Your task to perform on an android device: turn vacation reply on in the gmail app Image 0: 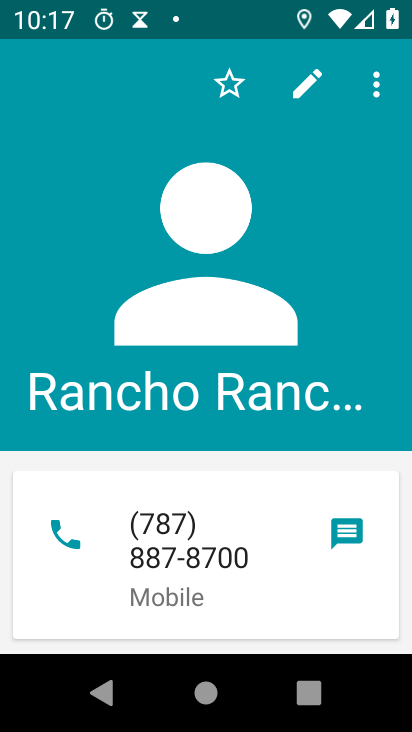
Step 0: press home button
Your task to perform on an android device: turn vacation reply on in the gmail app Image 1: 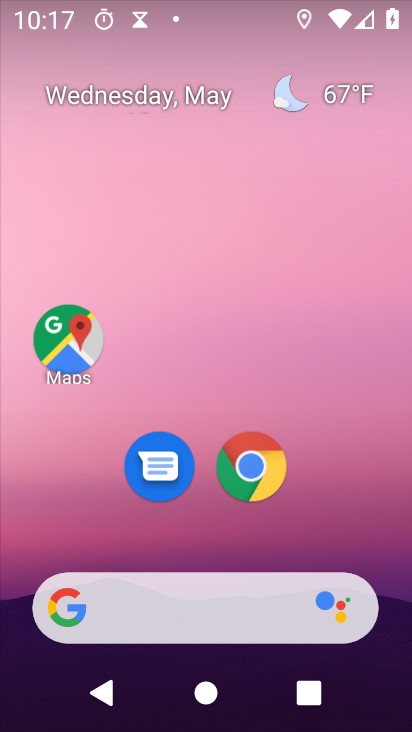
Step 1: drag from (248, 552) to (191, 296)
Your task to perform on an android device: turn vacation reply on in the gmail app Image 2: 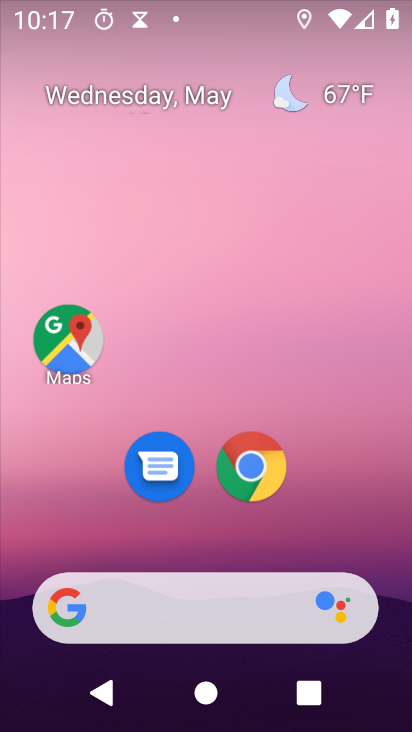
Step 2: drag from (177, 507) to (135, 180)
Your task to perform on an android device: turn vacation reply on in the gmail app Image 3: 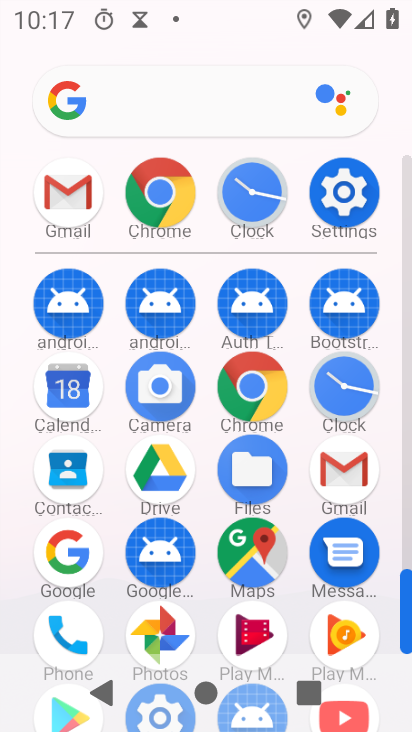
Step 3: click (76, 222)
Your task to perform on an android device: turn vacation reply on in the gmail app Image 4: 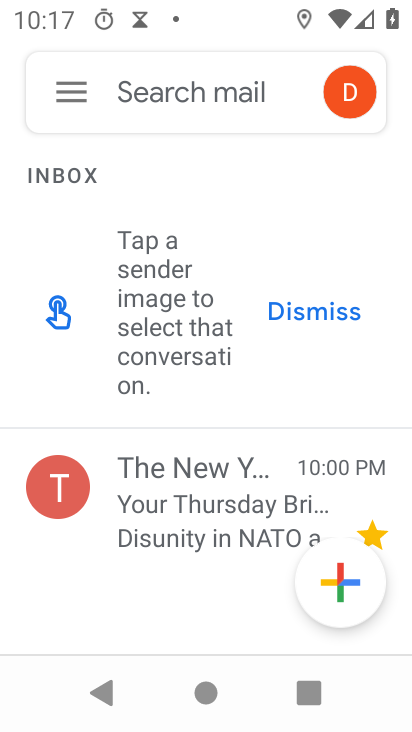
Step 4: click (78, 99)
Your task to perform on an android device: turn vacation reply on in the gmail app Image 5: 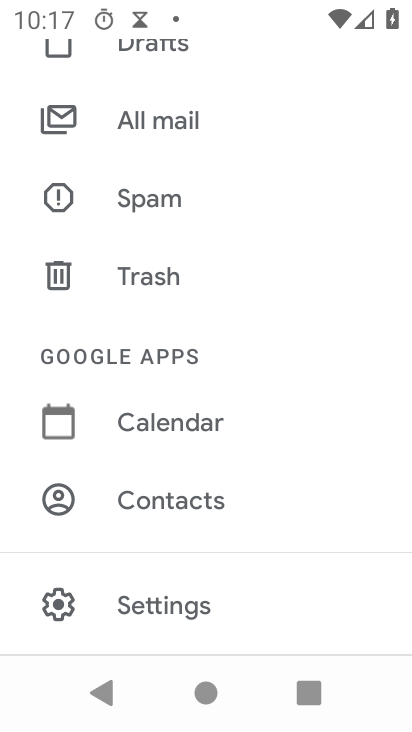
Step 5: click (156, 610)
Your task to perform on an android device: turn vacation reply on in the gmail app Image 6: 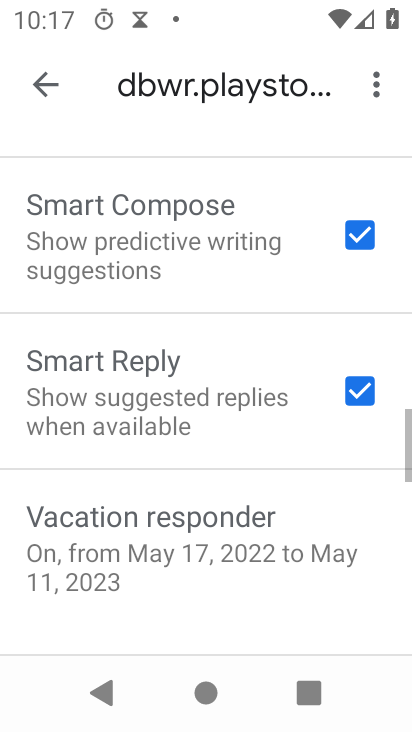
Step 6: click (165, 567)
Your task to perform on an android device: turn vacation reply on in the gmail app Image 7: 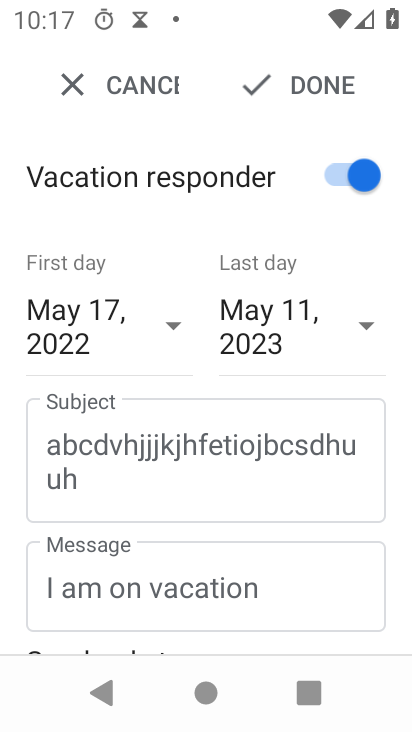
Step 7: task complete